Your task to perform on an android device: install app "DoorDash - Dasher" Image 0: 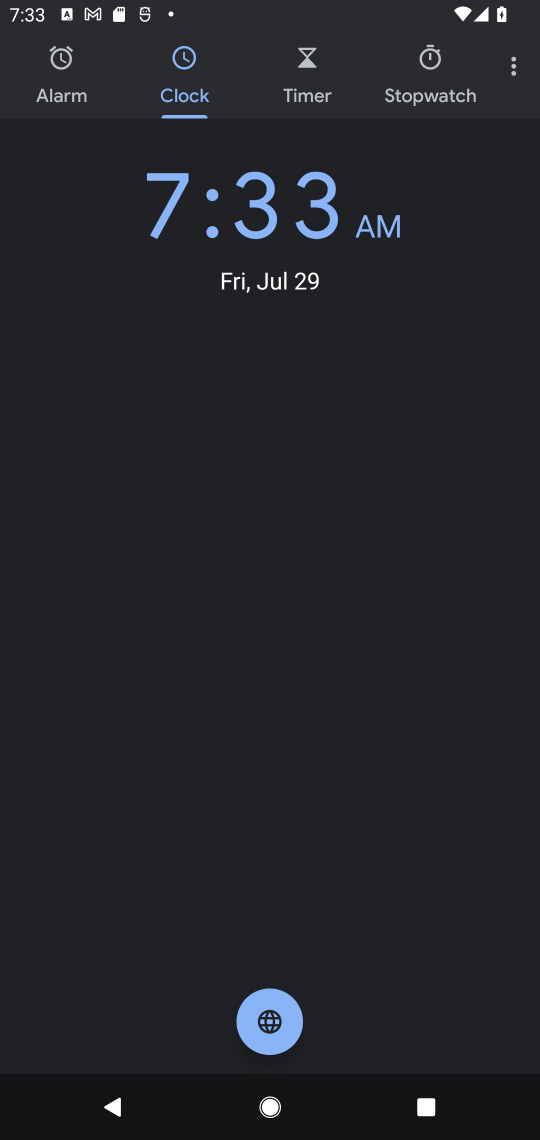
Step 0: press back button
Your task to perform on an android device: install app "DoorDash - Dasher" Image 1: 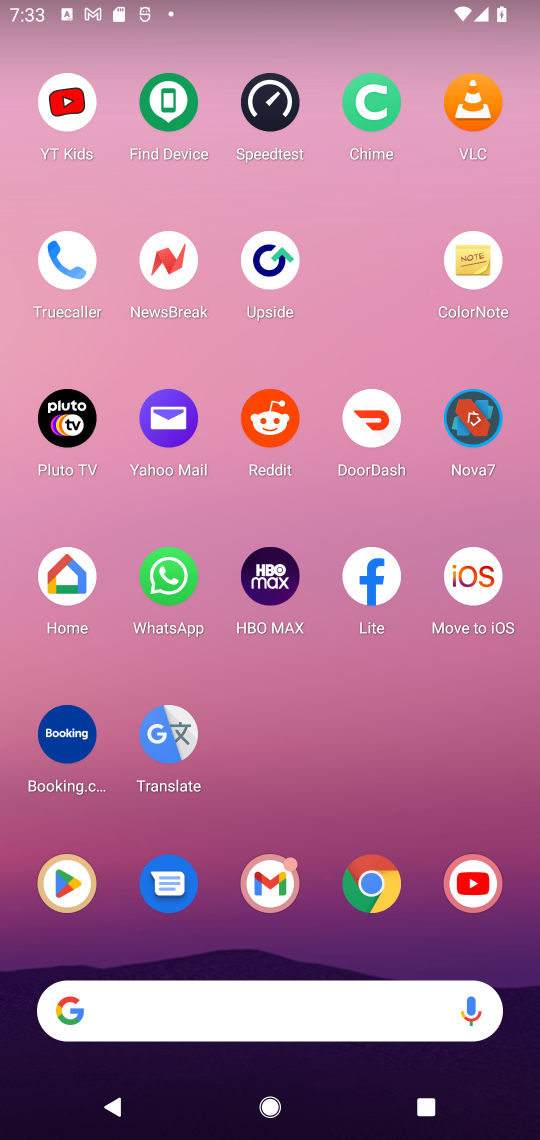
Step 1: click (60, 897)
Your task to perform on an android device: install app "DoorDash - Dasher" Image 2: 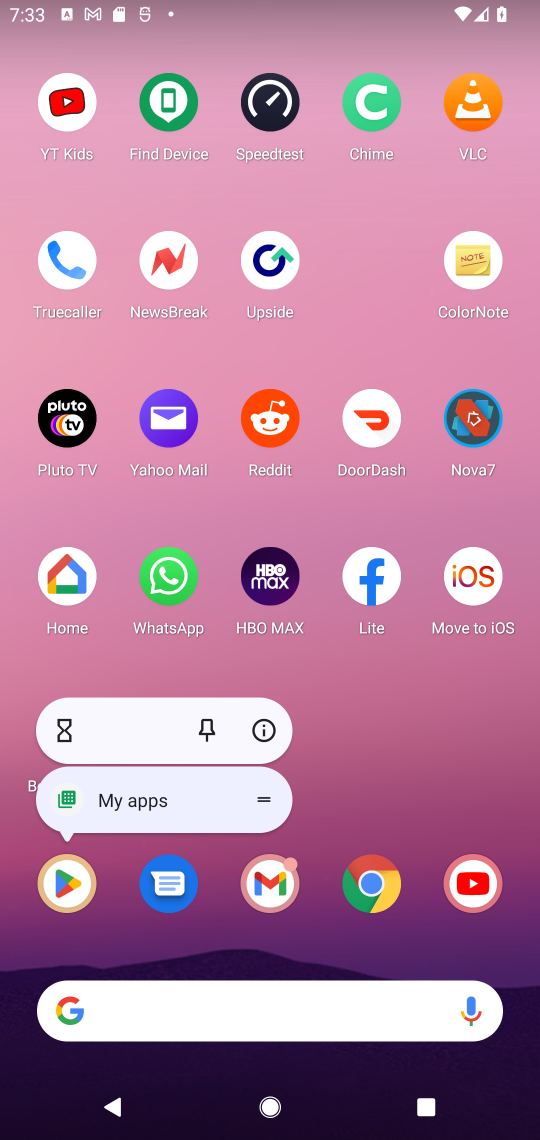
Step 2: click (75, 874)
Your task to perform on an android device: install app "DoorDash - Dasher" Image 3: 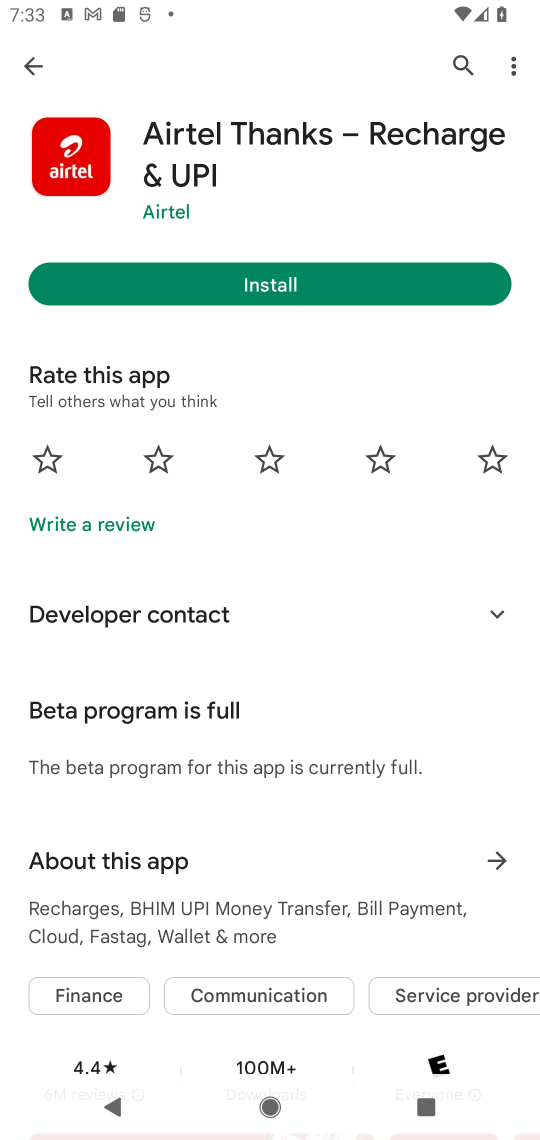
Step 3: click (463, 55)
Your task to perform on an android device: install app "DoorDash - Dasher" Image 4: 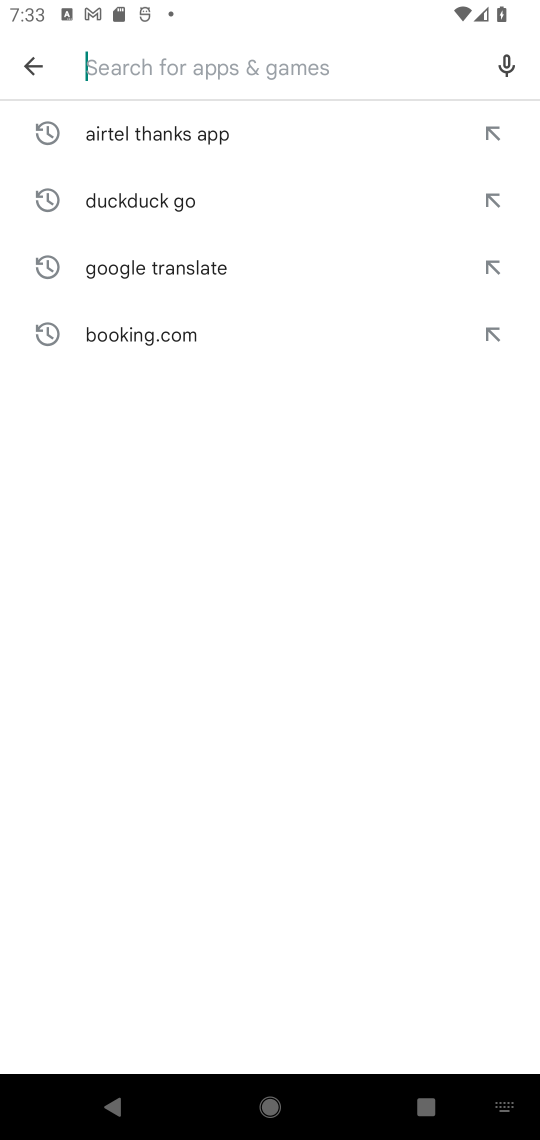
Step 4: click (138, 71)
Your task to perform on an android device: install app "DoorDash - Dasher" Image 5: 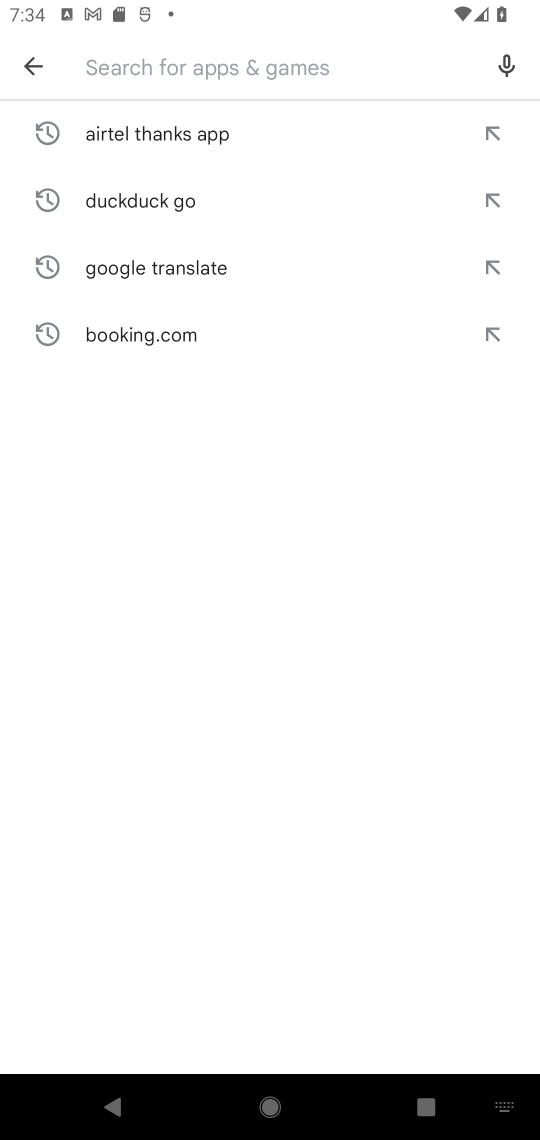
Step 5: type "door dash"
Your task to perform on an android device: install app "DoorDash - Dasher" Image 6: 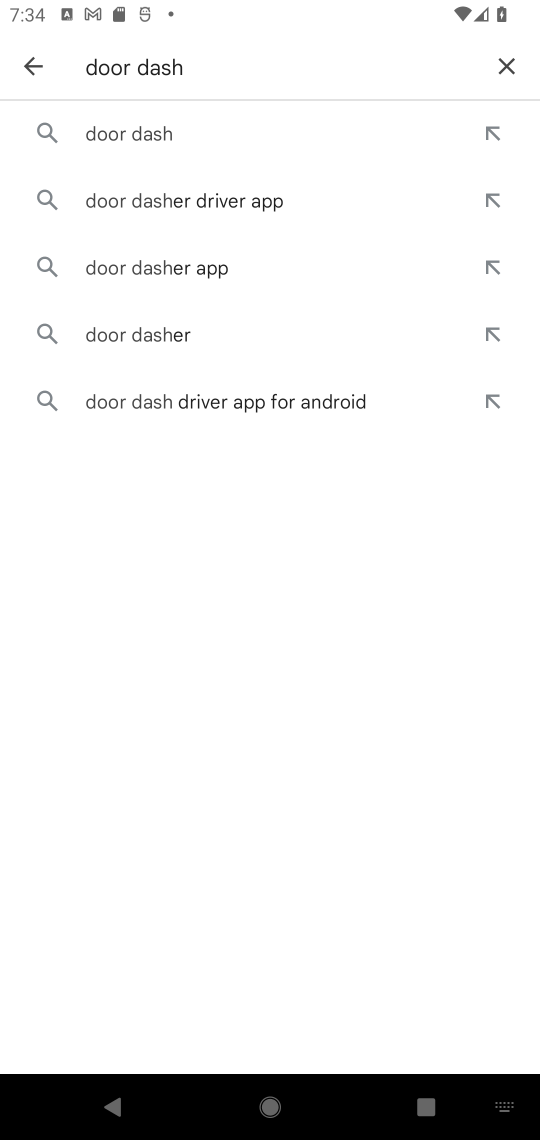
Step 6: click (167, 141)
Your task to perform on an android device: install app "DoorDash - Dasher" Image 7: 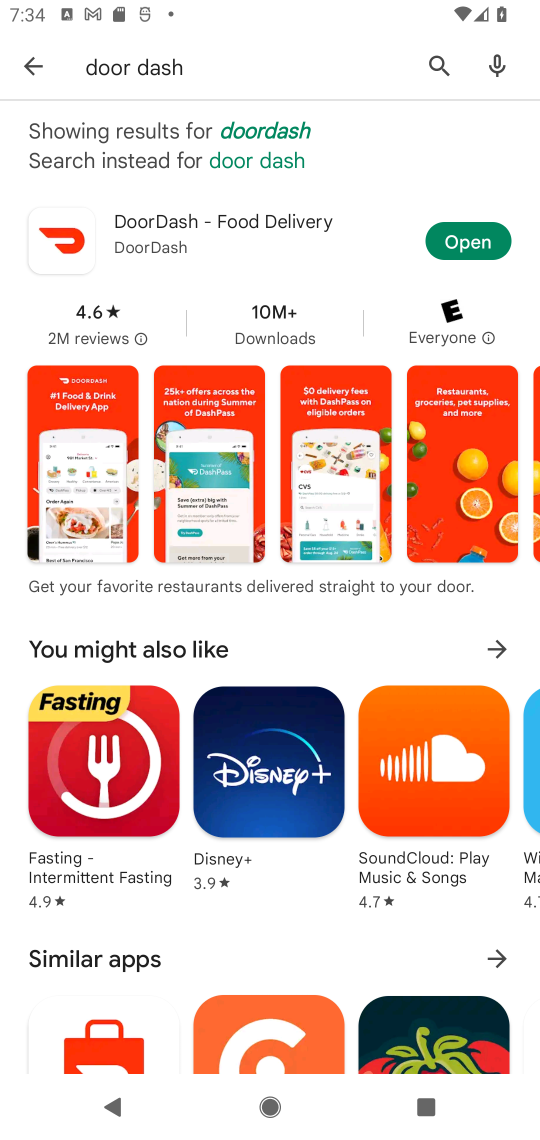
Step 7: click (106, 1051)
Your task to perform on an android device: install app "DoorDash - Dasher" Image 8: 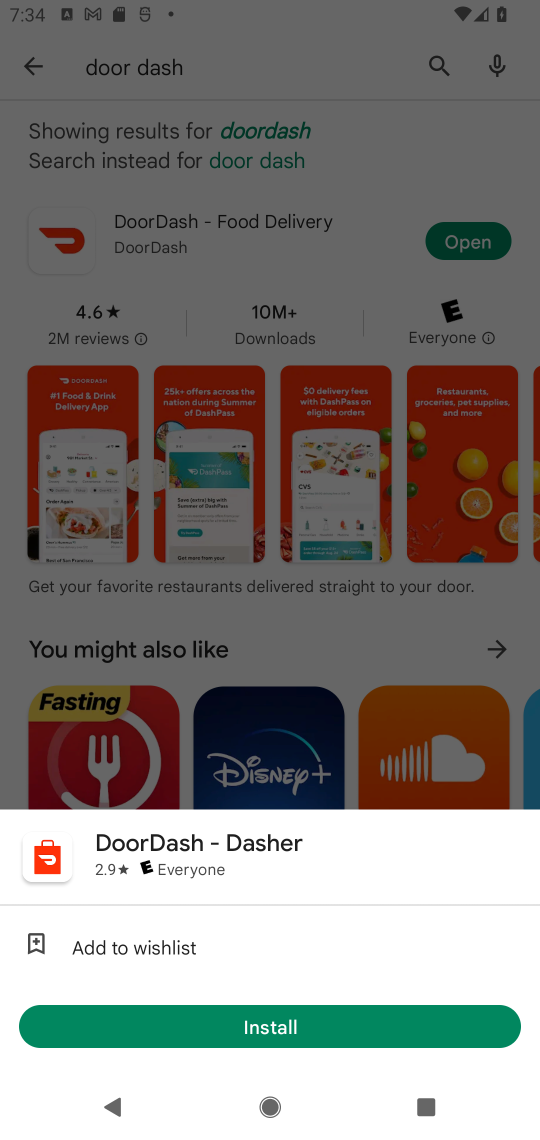
Step 8: click (244, 1020)
Your task to perform on an android device: install app "DoorDash - Dasher" Image 9: 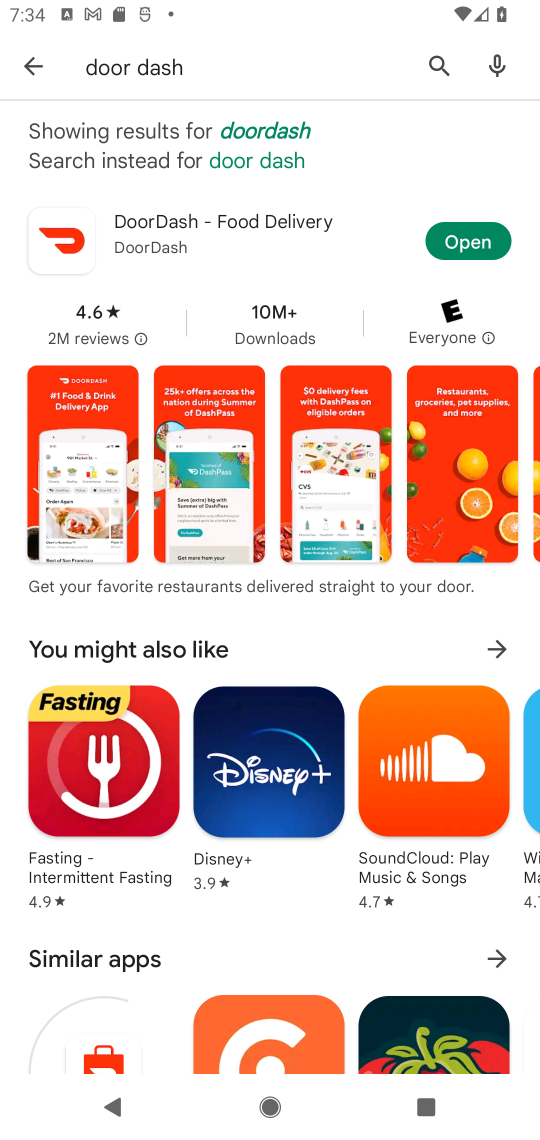
Step 9: click (464, 243)
Your task to perform on an android device: install app "DoorDash - Dasher" Image 10: 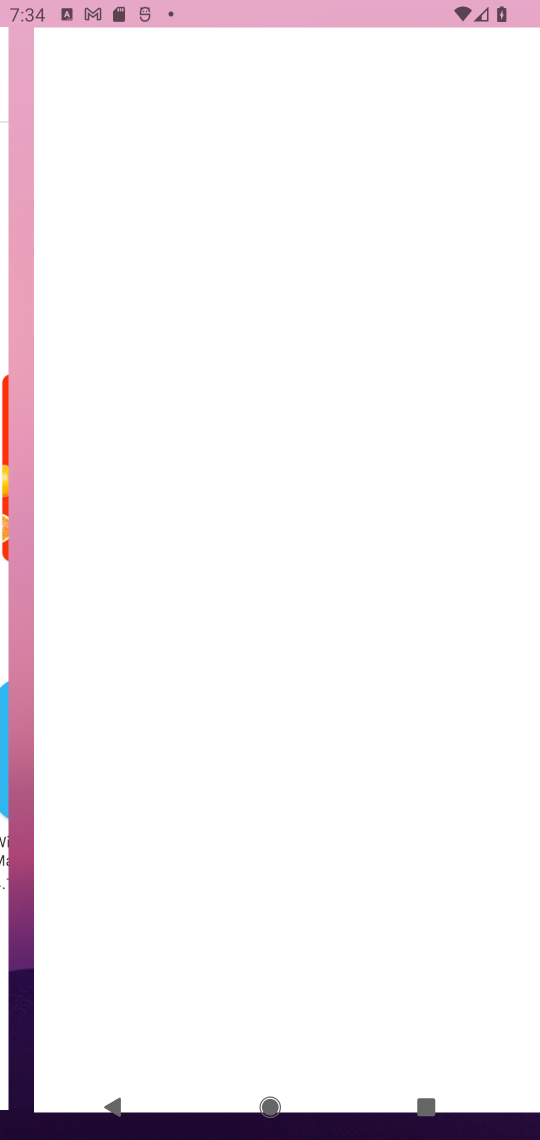
Step 10: task complete